Your task to perform on an android device: set the stopwatch Image 0: 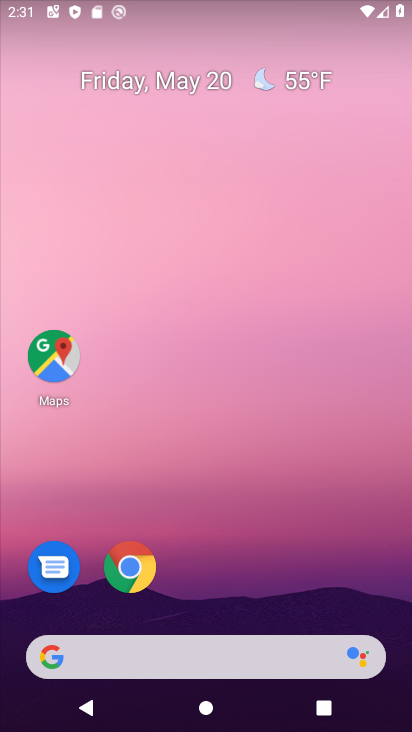
Step 0: drag from (216, 635) to (200, 200)
Your task to perform on an android device: set the stopwatch Image 1: 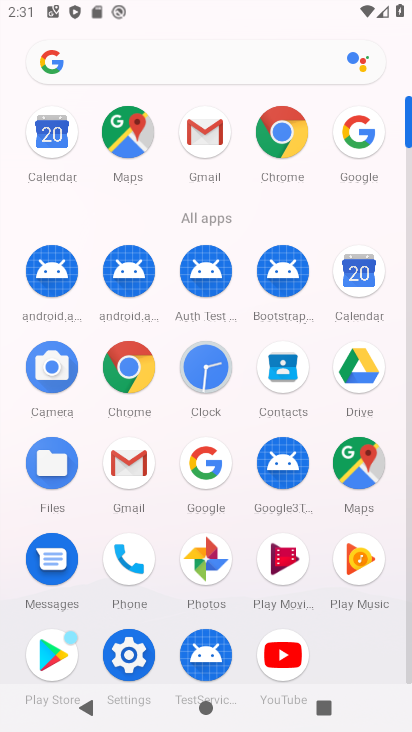
Step 1: click (203, 381)
Your task to perform on an android device: set the stopwatch Image 2: 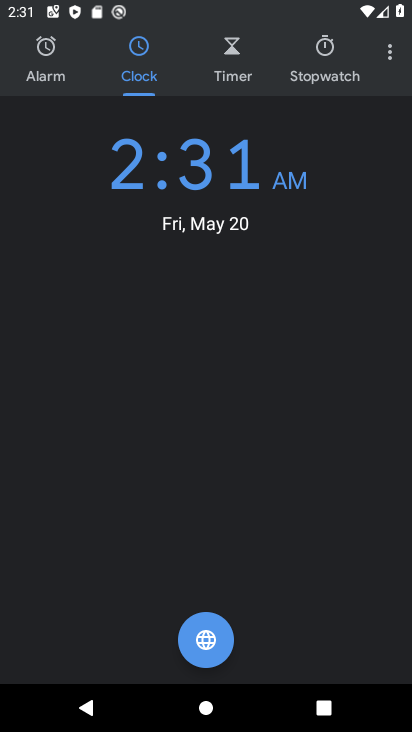
Step 2: click (309, 70)
Your task to perform on an android device: set the stopwatch Image 3: 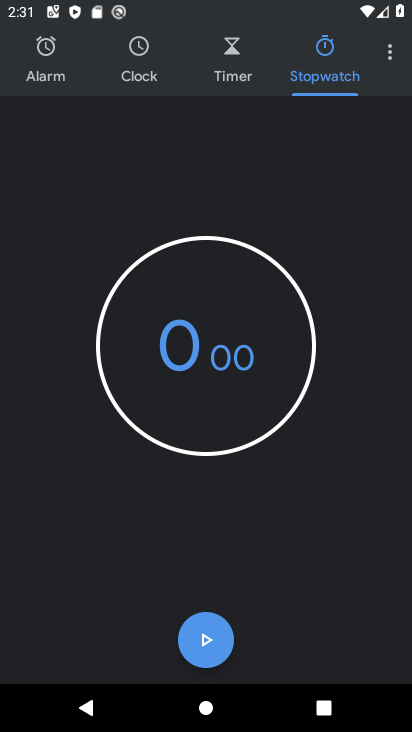
Step 3: click (203, 644)
Your task to perform on an android device: set the stopwatch Image 4: 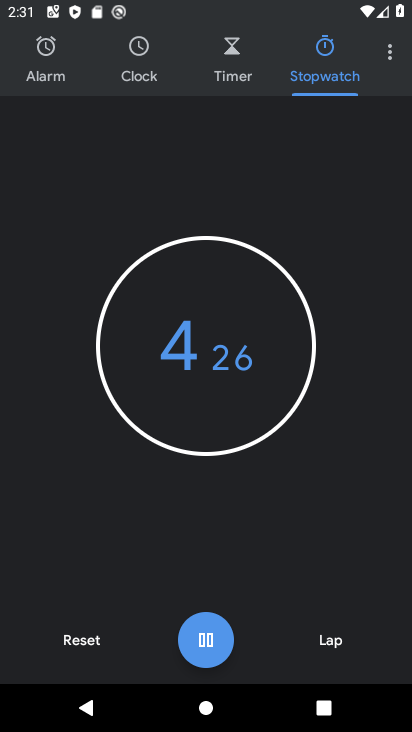
Step 4: click (207, 633)
Your task to perform on an android device: set the stopwatch Image 5: 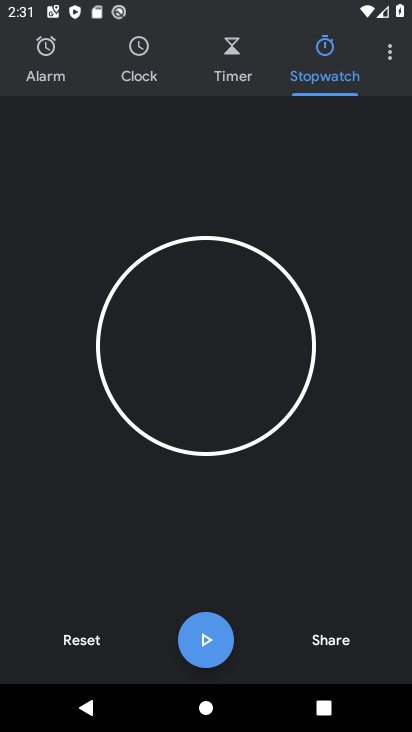
Step 5: click (199, 646)
Your task to perform on an android device: set the stopwatch Image 6: 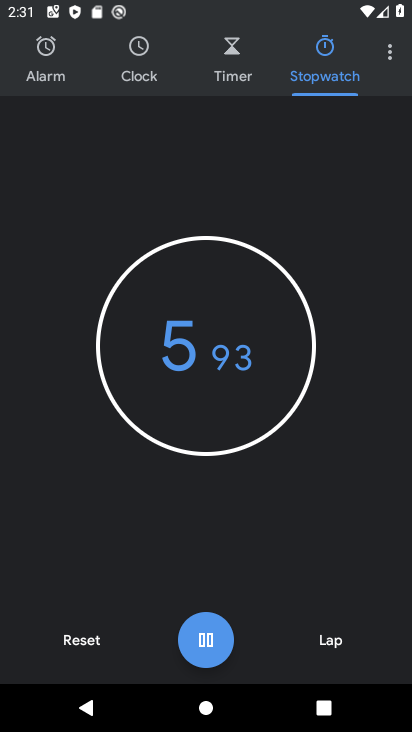
Step 6: click (217, 642)
Your task to perform on an android device: set the stopwatch Image 7: 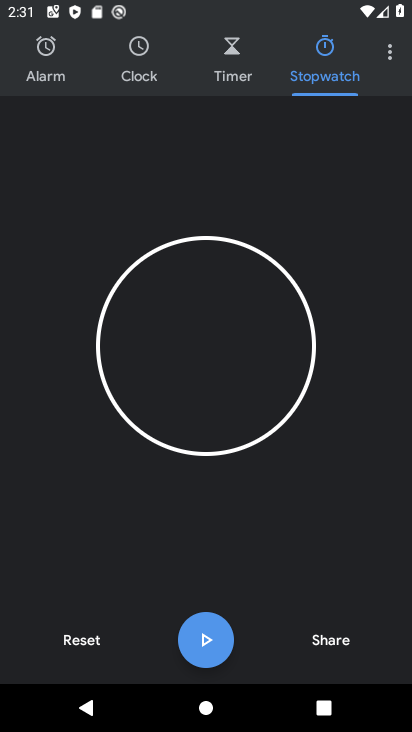
Step 7: task complete